Your task to perform on an android device: Go to accessibility settings Image 0: 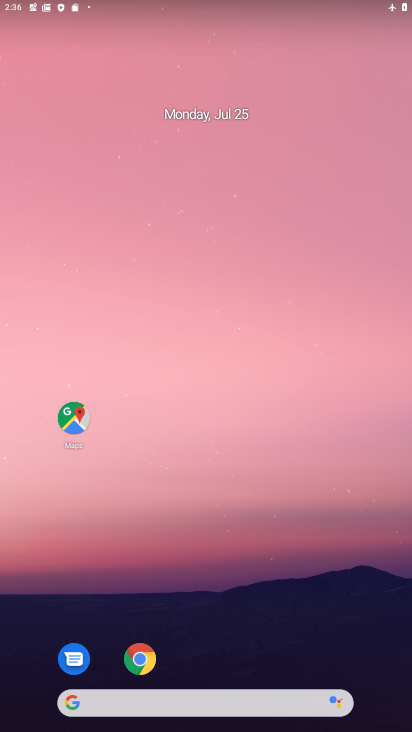
Step 0: drag from (268, 434) to (302, 31)
Your task to perform on an android device: Go to accessibility settings Image 1: 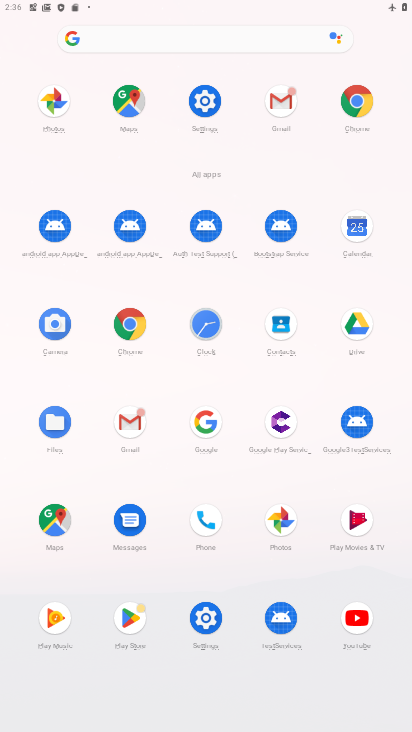
Step 1: click (203, 105)
Your task to perform on an android device: Go to accessibility settings Image 2: 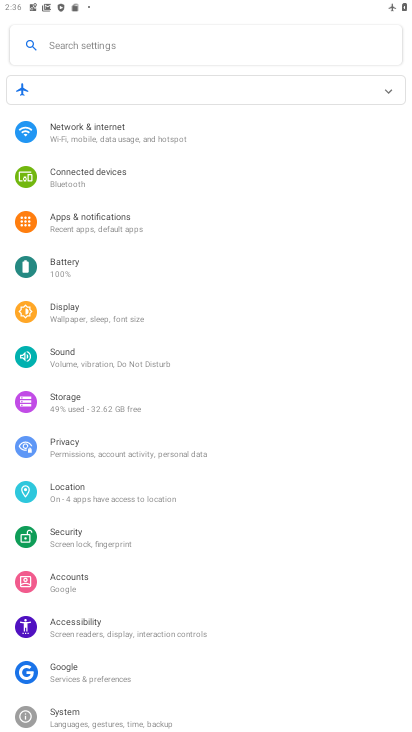
Step 2: click (74, 626)
Your task to perform on an android device: Go to accessibility settings Image 3: 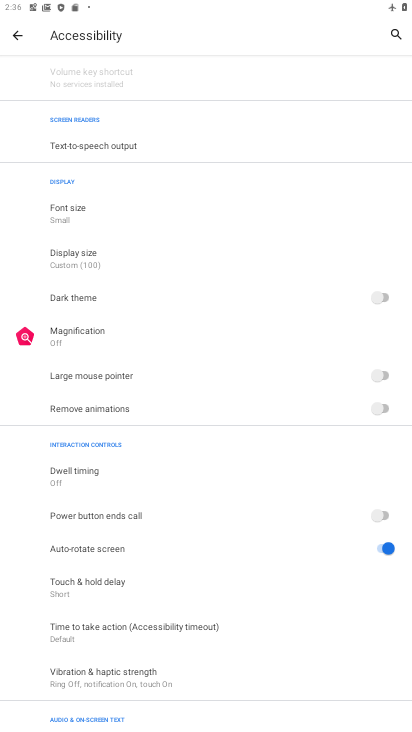
Step 3: task complete